Your task to perform on an android device: open app "Etsy: Buy & Sell Unique Items" (install if not already installed) and enter user name: "camp@inbox.com" and password: "unrelated" Image 0: 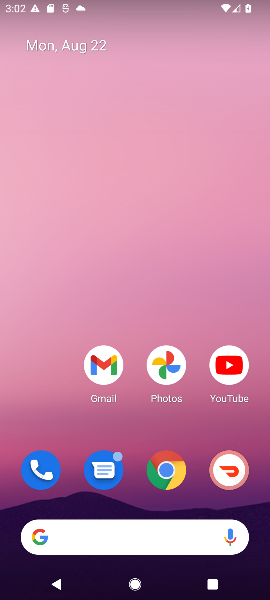
Step 0: drag from (117, 498) to (130, 1)
Your task to perform on an android device: open app "Etsy: Buy & Sell Unique Items" (install if not already installed) and enter user name: "camp@inbox.com" and password: "unrelated" Image 1: 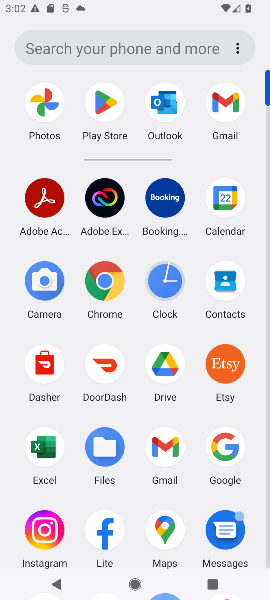
Step 1: click (106, 96)
Your task to perform on an android device: open app "Etsy: Buy & Sell Unique Items" (install if not already installed) and enter user name: "camp@inbox.com" and password: "unrelated" Image 2: 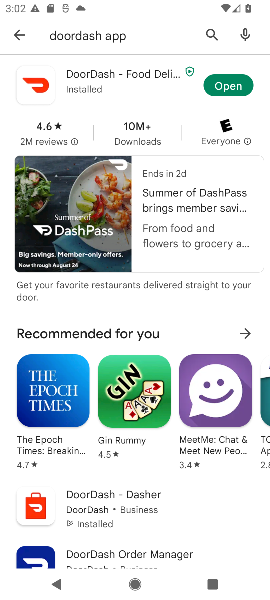
Step 2: click (22, 27)
Your task to perform on an android device: open app "Etsy: Buy & Sell Unique Items" (install if not already installed) and enter user name: "camp@inbox.com" and password: "unrelated" Image 3: 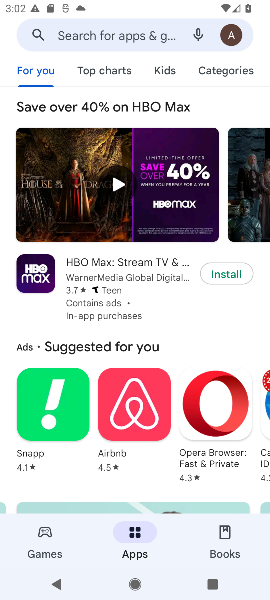
Step 3: click (128, 35)
Your task to perform on an android device: open app "Etsy: Buy & Sell Unique Items" (install if not already installed) and enter user name: "camp@inbox.com" and password: "unrelated" Image 4: 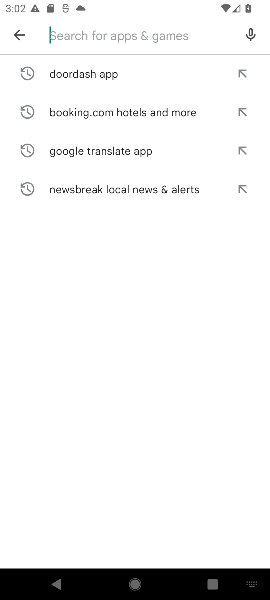
Step 4: type "Etsy: Buy & Sell Unique Items "
Your task to perform on an android device: open app "Etsy: Buy & Sell Unique Items" (install if not already installed) and enter user name: "camp@inbox.com" and password: "unrelated" Image 5: 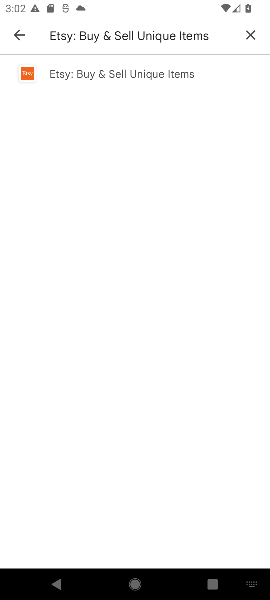
Step 5: click (120, 81)
Your task to perform on an android device: open app "Etsy: Buy & Sell Unique Items" (install if not already installed) and enter user name: "camp@inbox.com" and password: "unrelated" Image 6: 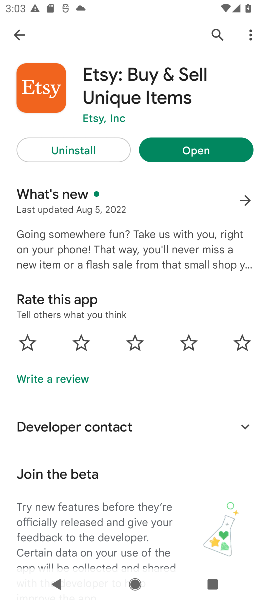
Step 6: click (213, 154)
Your task to perform on an android device: open app "Etsy: Buy & Sell Unique Items" (install if not already installed) and enter user name: "camp@inbox.com" and password: "unrelated" Image 7: 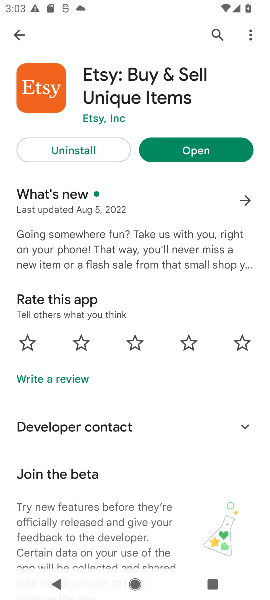
Step 7: task complete